Your task to perform on an android device: turn smart compose on in the gmail app Image 0: 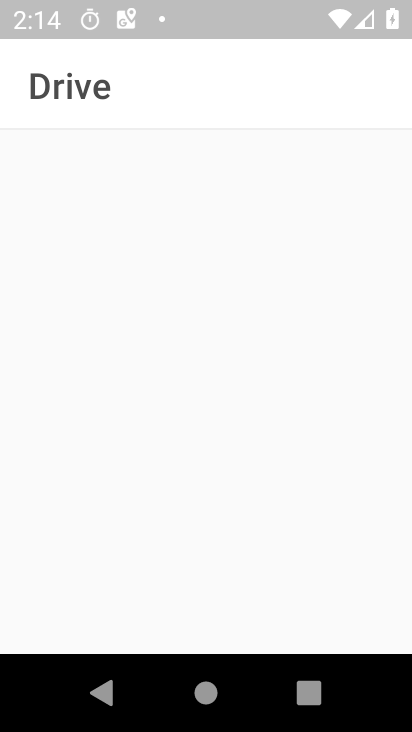
Step 0: press home button
Your task to perform on an android device: turn smart compose on in the gmail app Image 1: 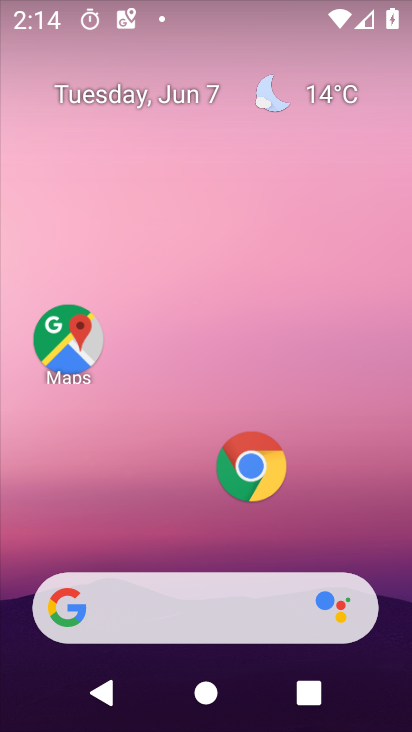
Step 1: drag from (154, 716) to (105, 42)
Your task to perform on an android device: turn smart compose on in the gmail app Image 2: 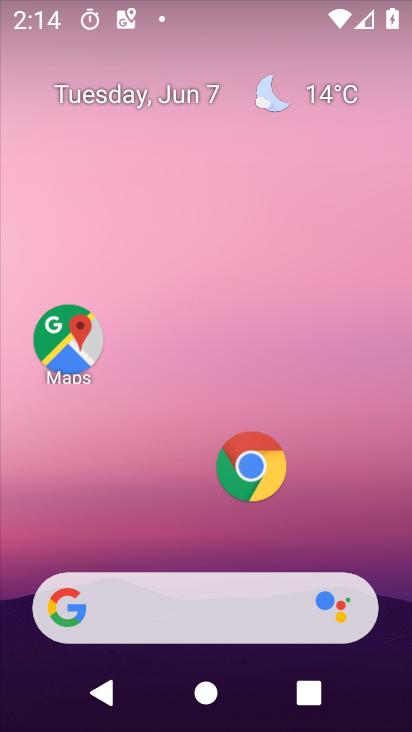
Step 2: drag from (170, 723) to (149, 146)
Your task to perform on an android device: turn smart compose on in the gmail app Image 3: 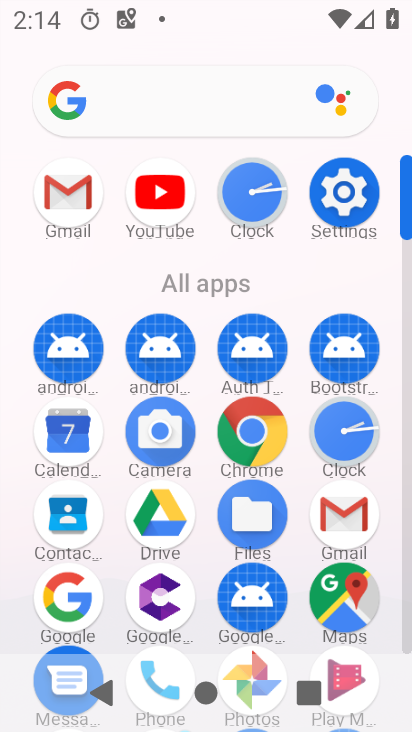
Step 3: click (68, 189)
Your task to perform on an android device: turn smart compose on in the gmail app Image 4: 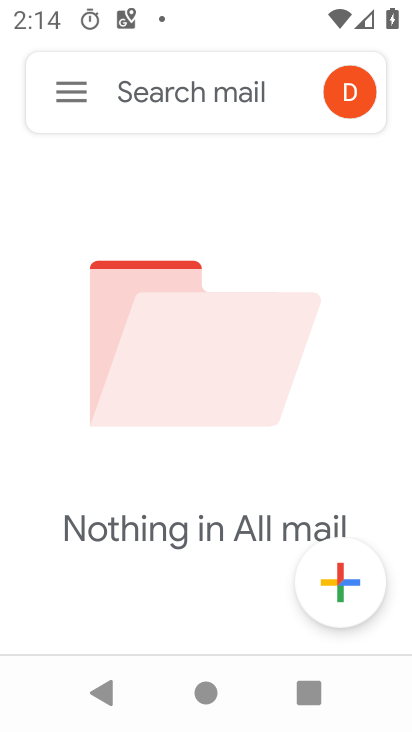
Step 4: click (62, 104)
Your task to perform on an android device: turn smart compose on in the gmail app Image 5: 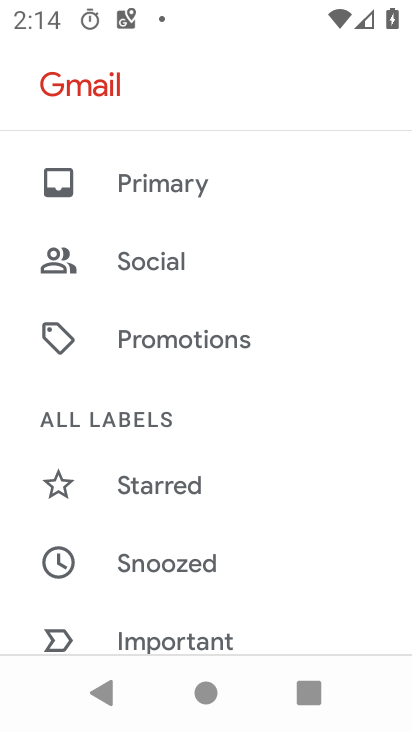
Step 5: drag from (253, 594) to (270, 210)
Your task to perform on an android device: turn smart compose on in the gmail app Image 6: 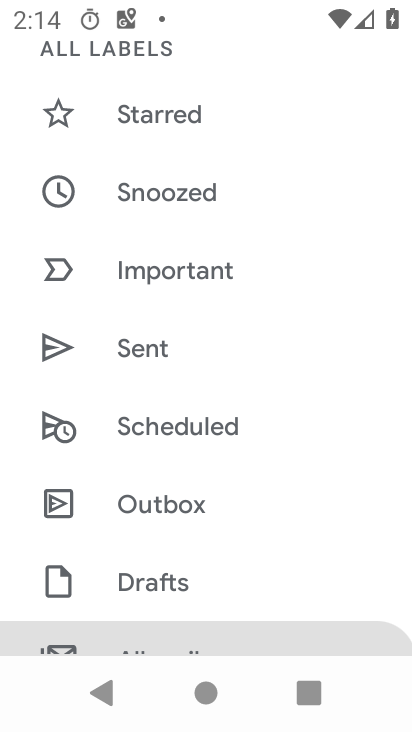
Step 6: drag from (206, 585) to (214, 174)
Your task to perform on an android device: turn smart compose on in the gmail app Image 7: 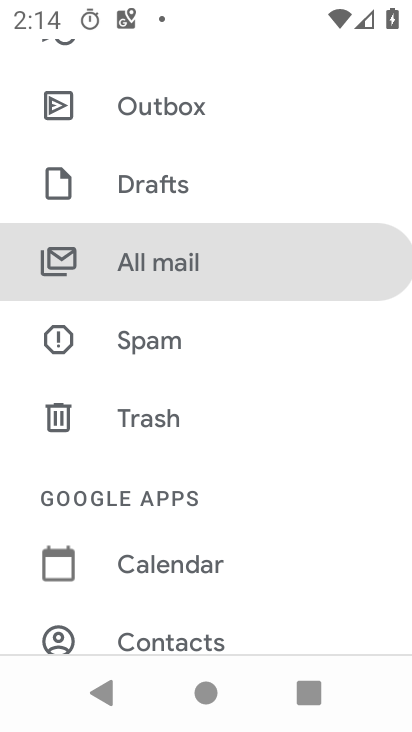
Step 7: drag from (205, 590) to (240, 101)
Your task to perform on an android device: turn smart compose on in the gmail app Image 8: 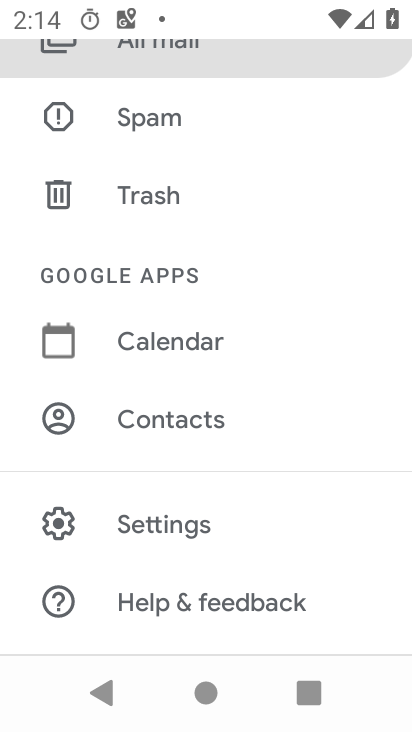
Step 8: click (163, 516)
Your task to perform on an android device: turn smart compose on in the gmail app Image 9: 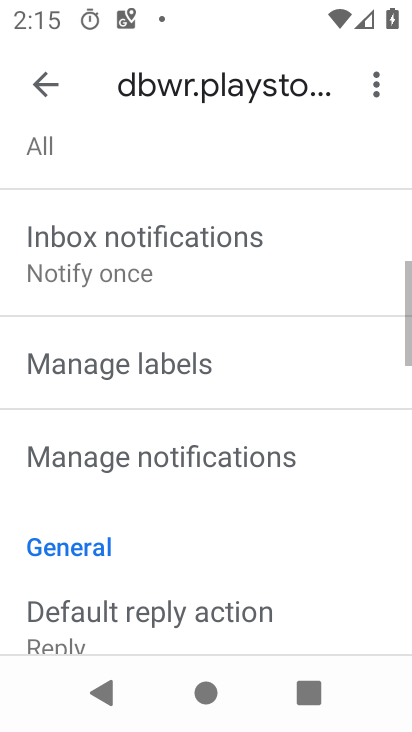
Step 9: task complete